Your task to perform on an android device: turn off data saver in the chrome app Image 0: 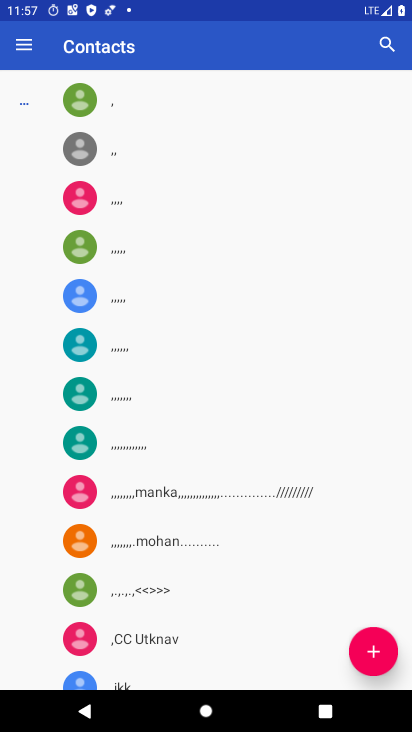
Step 0: press home button
Your task to perform on an android device: turn off data saver in the chrome app Image 1: 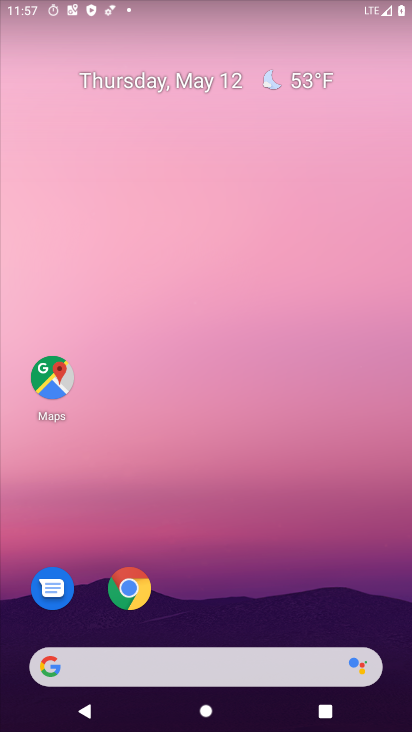
Step 1: click (129, 589)
Your task to perform on an android device: turn off data saver in the chrome app Image 2: 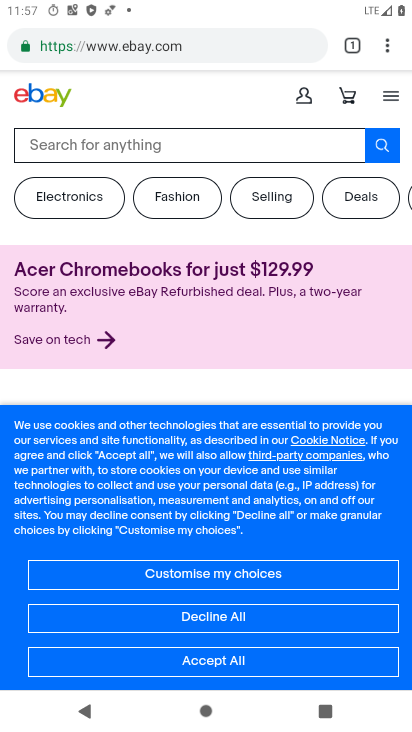
Step 2: drag from (390, 53) to (209, 544)
Your task to perform on an android device: turn off data saver in the chrome app Image 3: 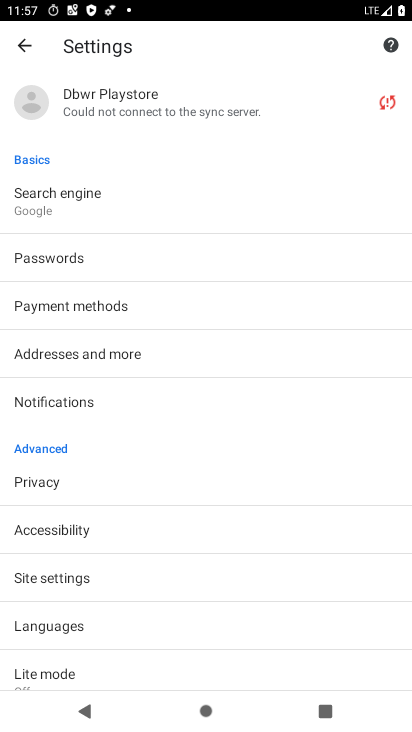
Step 3: click (66, 663)
Your task to perform on an android device: turn off data saver in the chrome app Image 4: 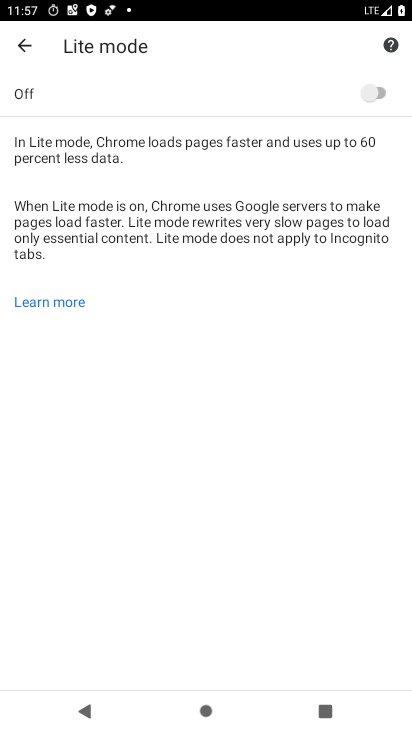
Step 4: task complete